Your task to perform on an android device: Show me popular videos on Youtube Image 0: 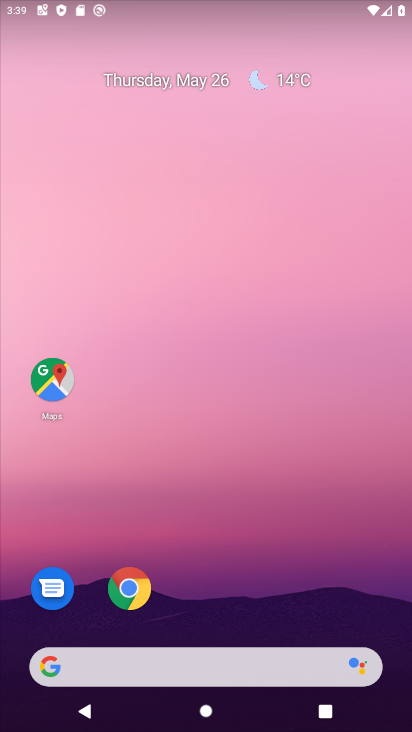
Step 0: drag from (223, 597) to (339, 28)
Your task to perform on an android device: Show me popular videos on Youtube Image 1: 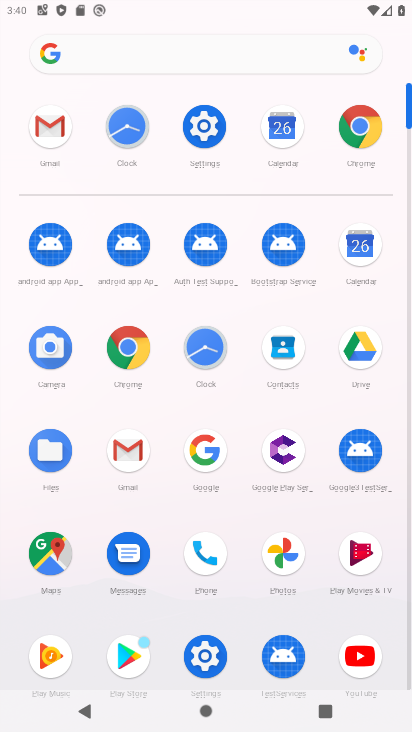
Step 1: click (361, 667)
Your task to perform on an android device: Show me popular videos on Youtube Image 2: 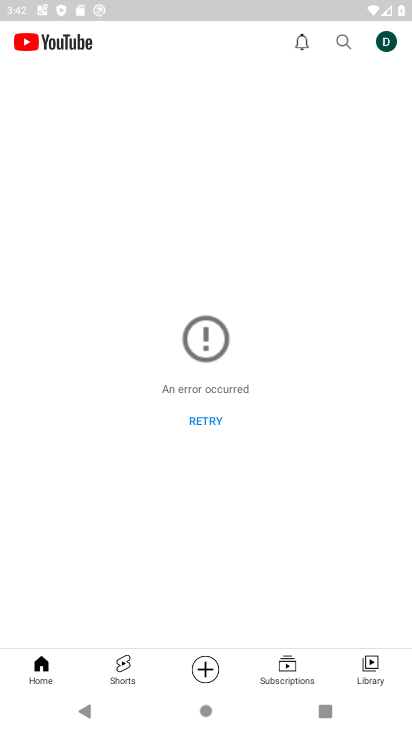
Step 2: task complete